Your task to perform on an android device: Check the news Image 0: 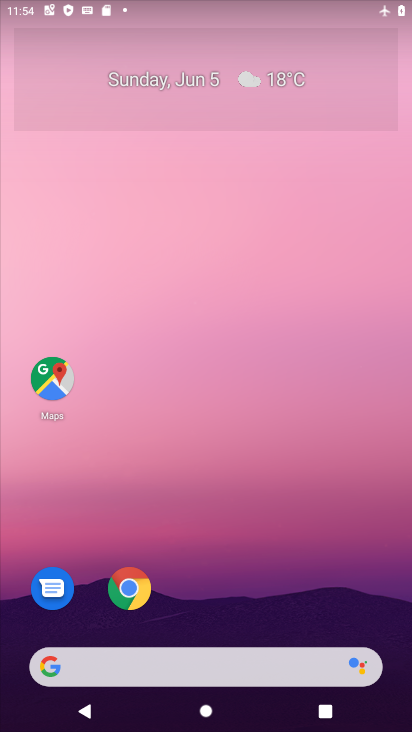
Step 0: click (223, 616)
Your task to perform on an android device: Check the news Image 1: 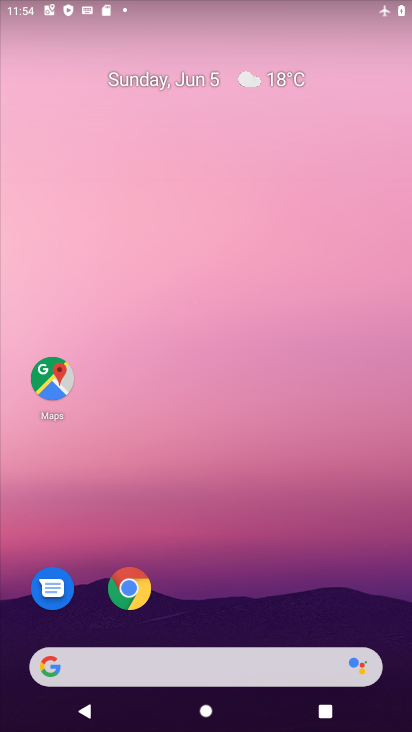
Step 1: click (258, 668)
Your task to perform on an android device: Check the news Image 2: 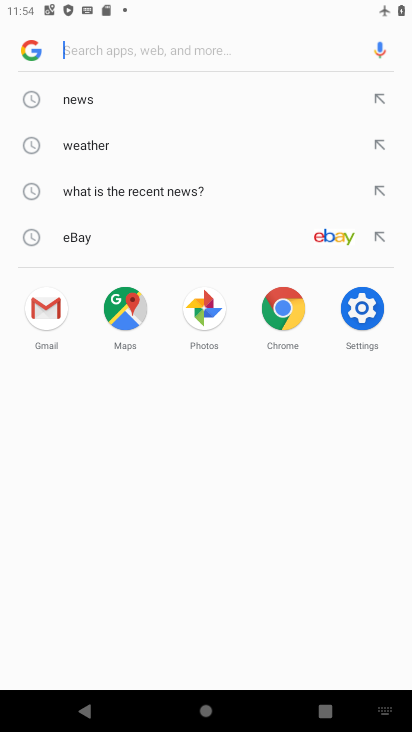
Step 2: click (144, 95)
Your task to perform on an android device: Check the news Image 3: 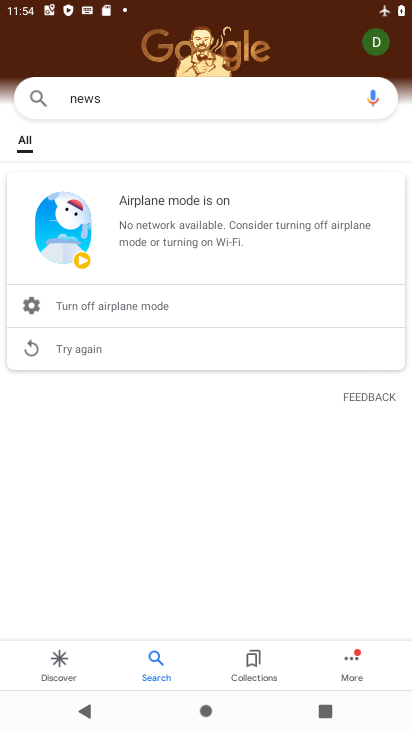
Step 3: task complete